Your task to perform on an android device: toggle wifi Image 0: 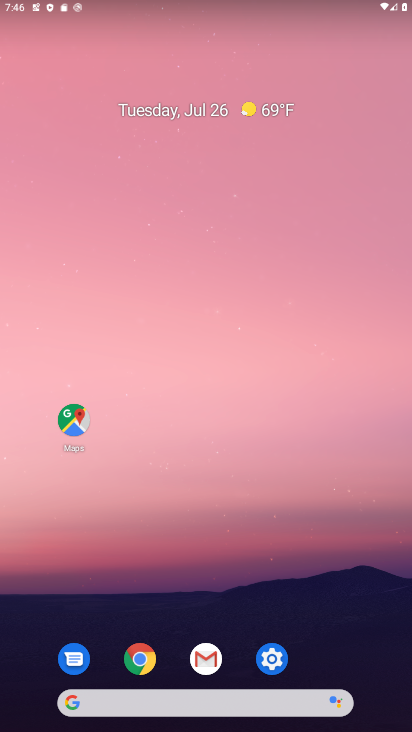
Step 0: click (265, 654)
Your task to perform on an android device: toggle wifi Image 1: 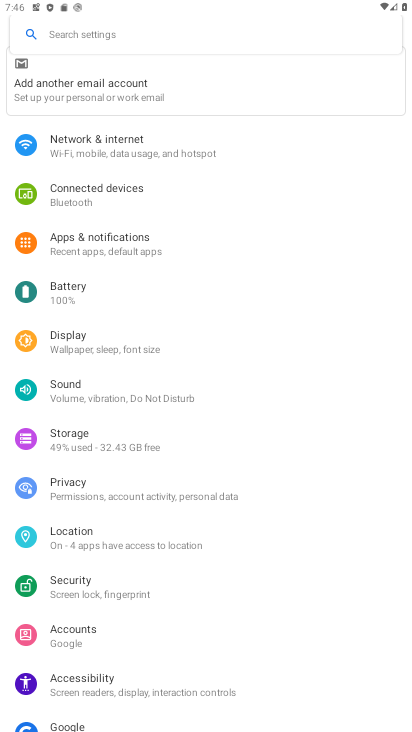
Step 1: click (142, 146)
Your task to perform on an android device: toggle wifi Image 2: 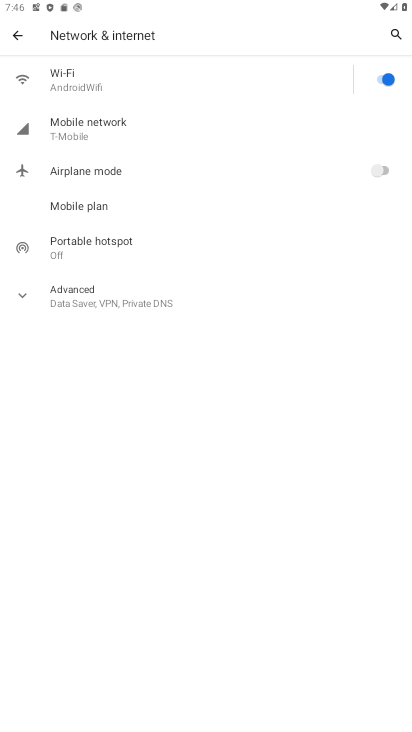
Step 2: click (139, 90)
Your task to perform on an android device: toggle wifi Image 3: 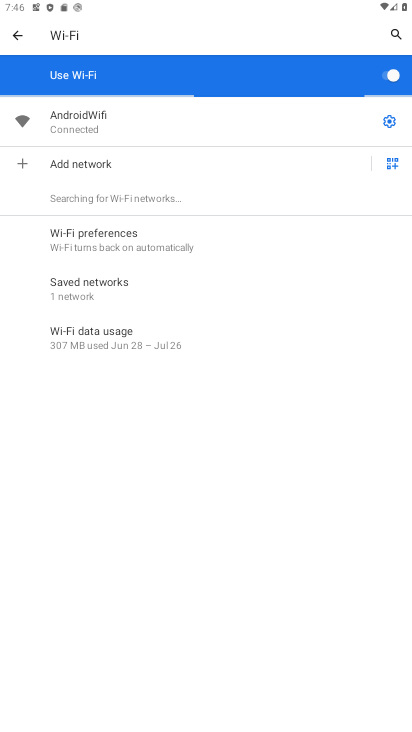
Step 3: task complete